Your task to perform on an android device: Open the Play Movies app and select the watchlist tab. Image 0: 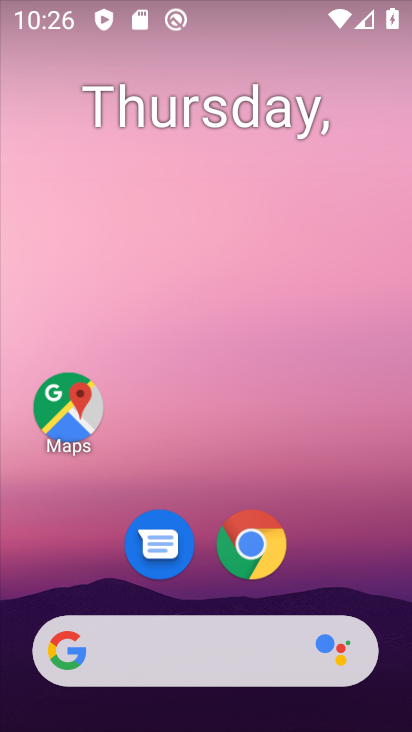
Step 0: drag from (344, 521) to (133, 116)
Your task to perform on an android device: Open the Play Movies app and select the watchlist tab. Image 1: 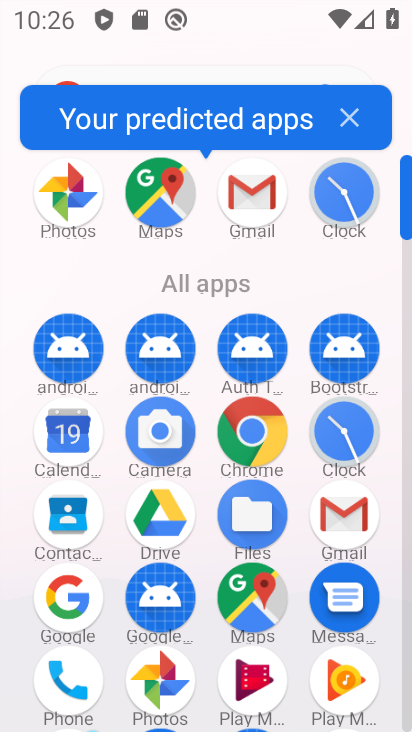
Step 1: click (259, 687)
Your task to perform on an android device: Open the Play Movies app and select the watchlist tab. Image 2: 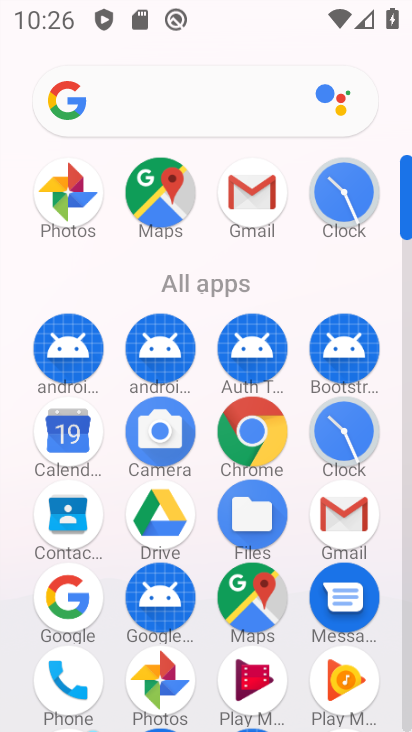
Step 2: click (253, 679)
Your task to perform on an android device: Open the Play Movies app and select the watchlist tab. Image 3: 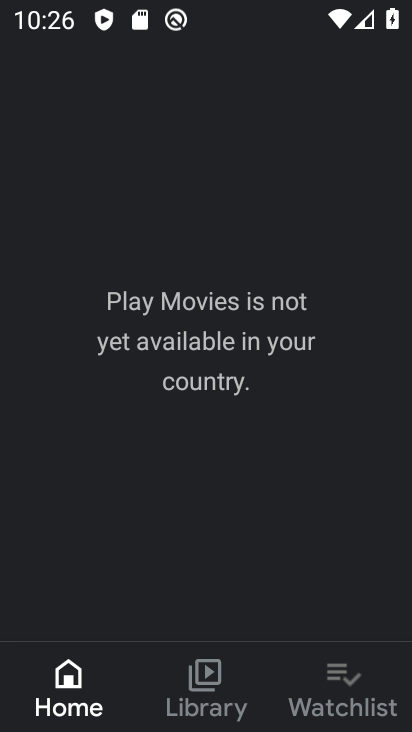
Step 3: click (336, 689)
Your task to perform on an android device: Open the Play Movies app and select the watchlist tab. Image 4: 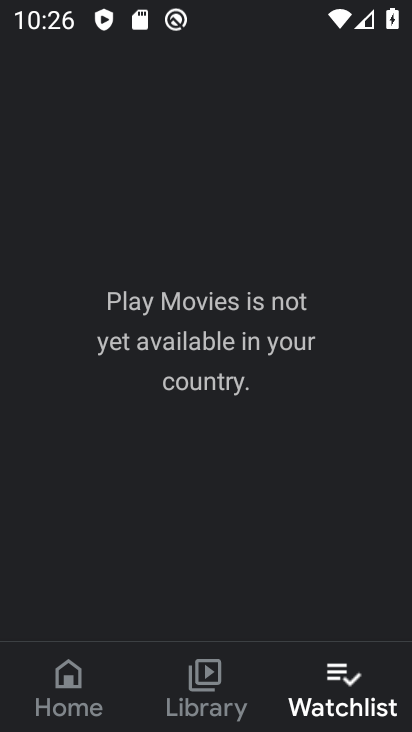
Step 4: task complete